Your task to perform on an android device: open wifi settings Image 0: 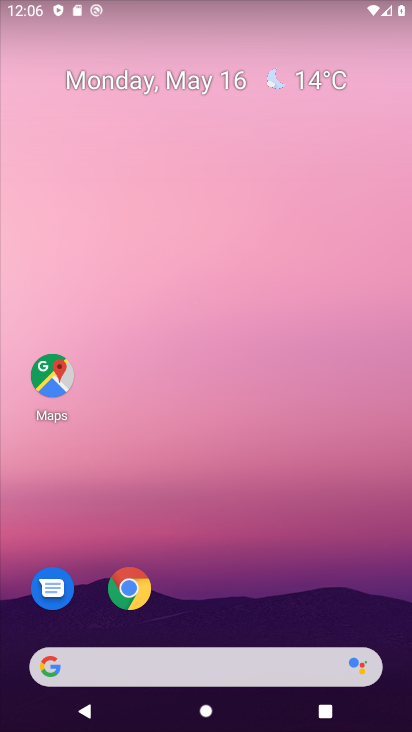
Step 0: drag from (189, 536) to (206, 208)
Your task to perform on an android device: open wifi settings Image 1: 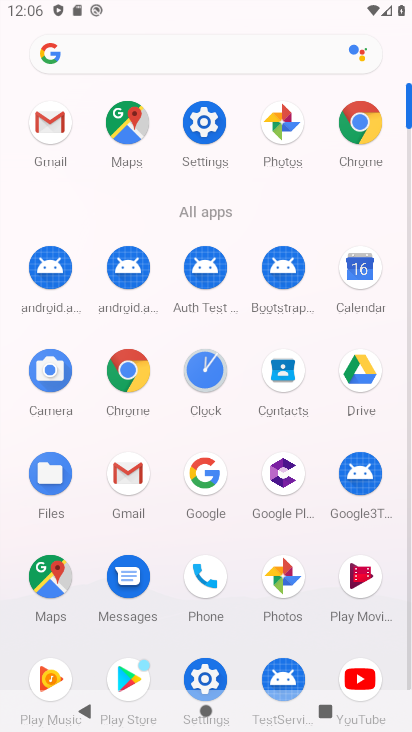
Step 1: click (208, 666)
Your task to perform on an android device: open wifi settings Image 2: 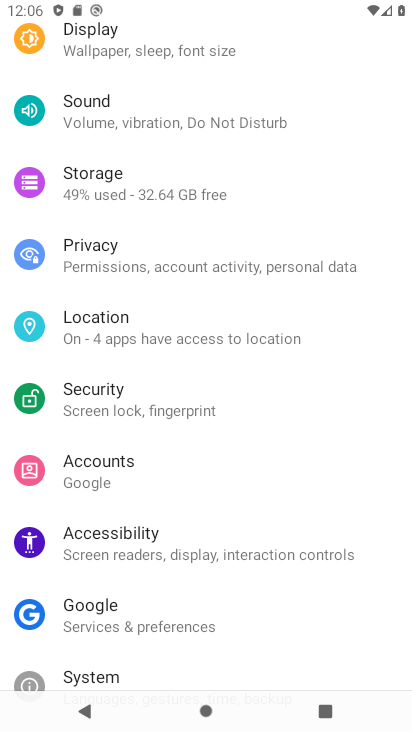
Step 2: drag from (139, 242) to (106, 545)
Your task to perform on an android device: open wifi settings Image 3: 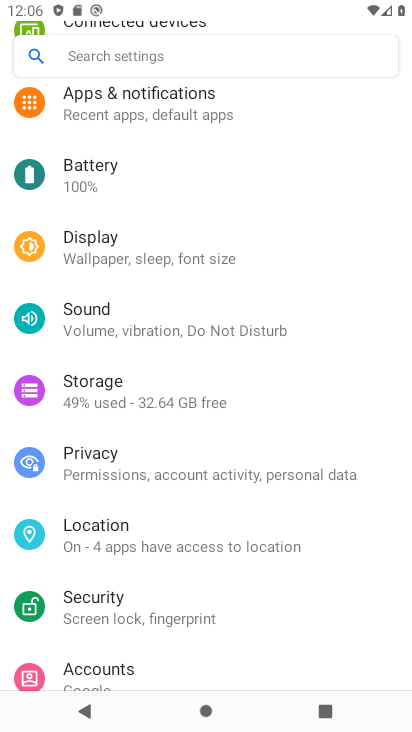
Step 3: drag from (244, 123) to (231, 488)
Your task to perform on an android device: open wifi settings Image 4: 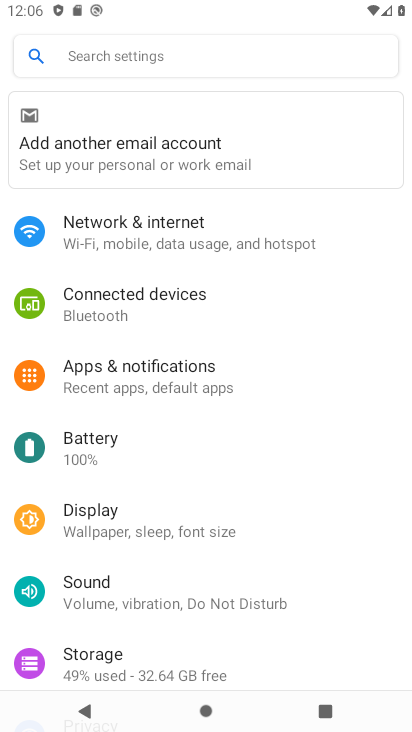
Step 4: click (168, 228)
Your task to perform on an android device: open wifi settings Image 5: 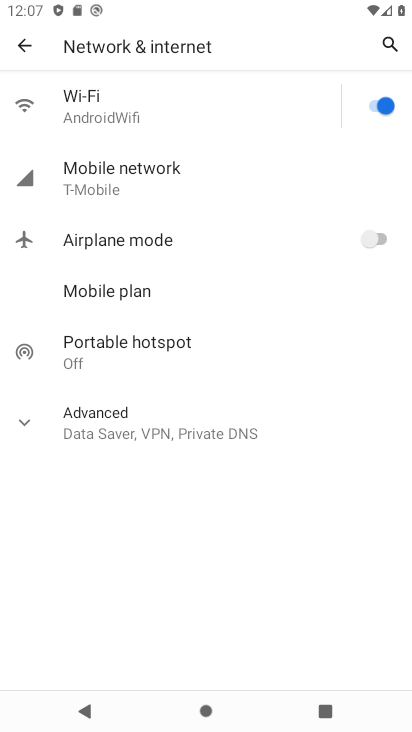
Step 5: task complete